Your task to perform on an android device: add a contact Image 0: 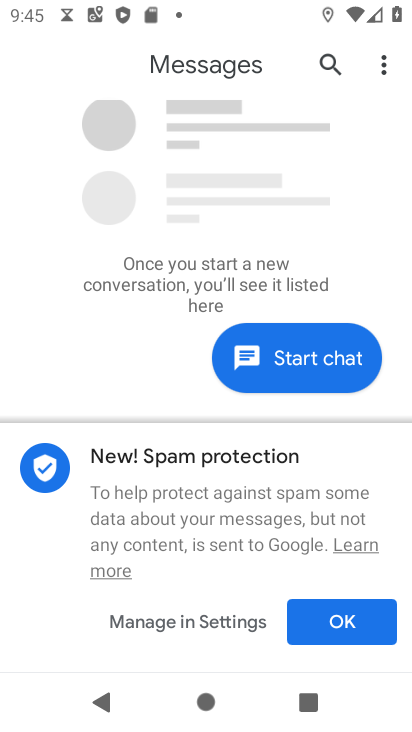
Step 0: press back button
Your task to perform on an android device: add a contact Image 1: 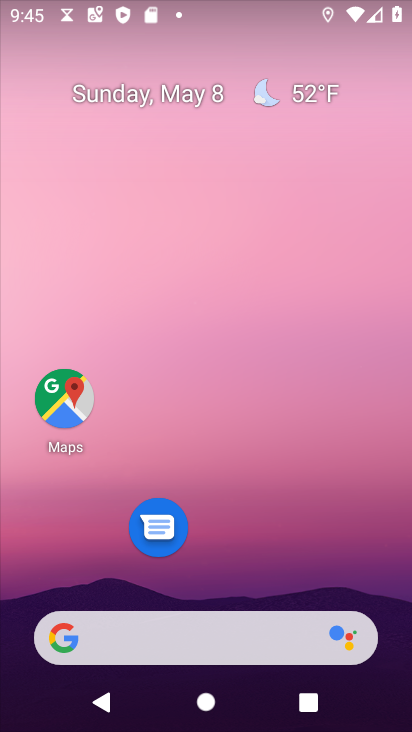
Step 1: drag from (237, 535) to (237, 68)
Your task to perform on an android device: add a contact Image 2: 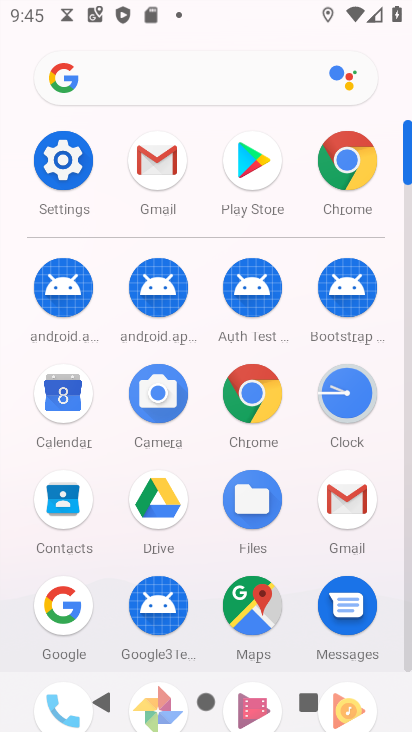
Step 2: click (64, 498)
Your task to perform on an android device: add a contact Image 3: 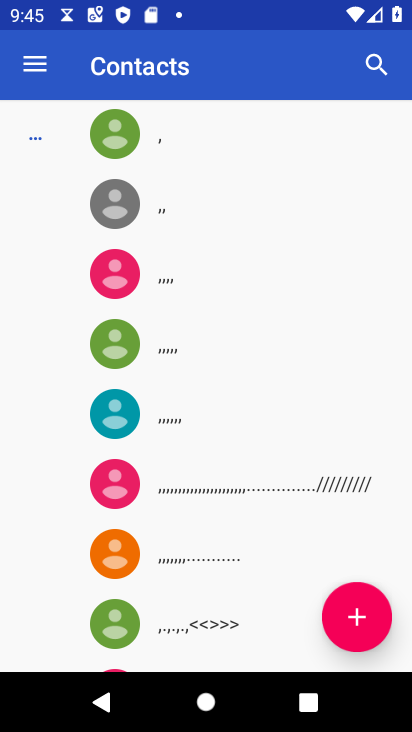
Step 3: click (353, 618)
Your task to perform on an android device: add a contact Image 4: 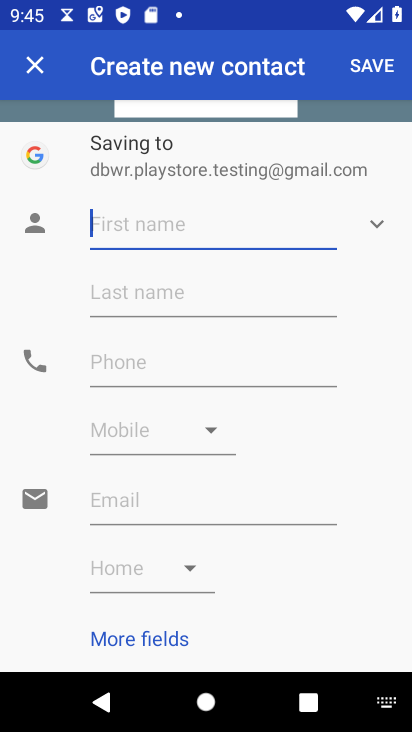
Step 4: click (146, 223)
Your task to perform on an android device: add a contact Image 5: 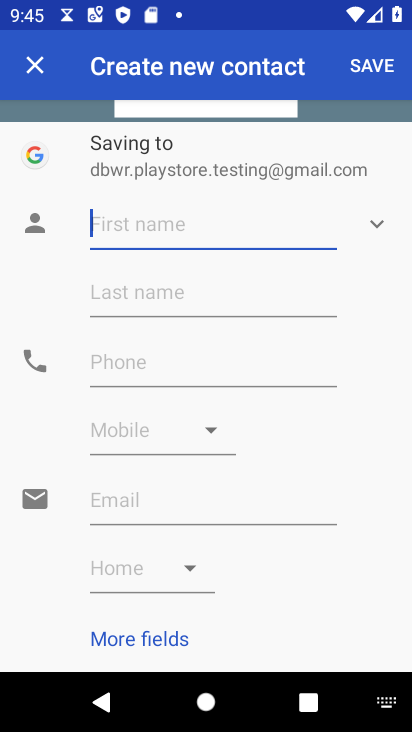
Step 5: click (187, 226)
Your task to perform on an android device: add a contact Image 6: 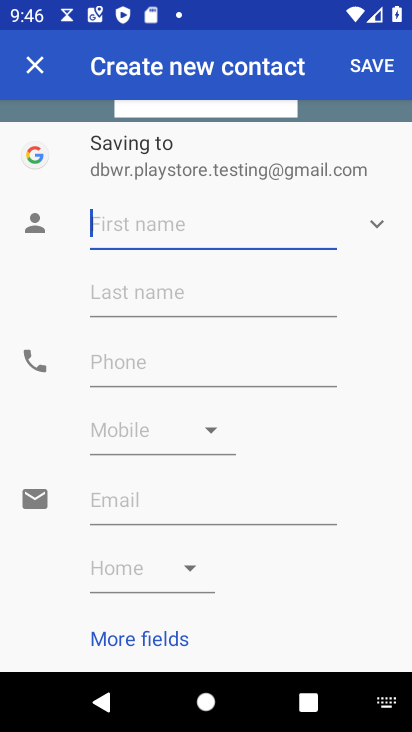
Step 6: type "Suryabhan"
Your task to perform on an android device: add a contact Image 7: 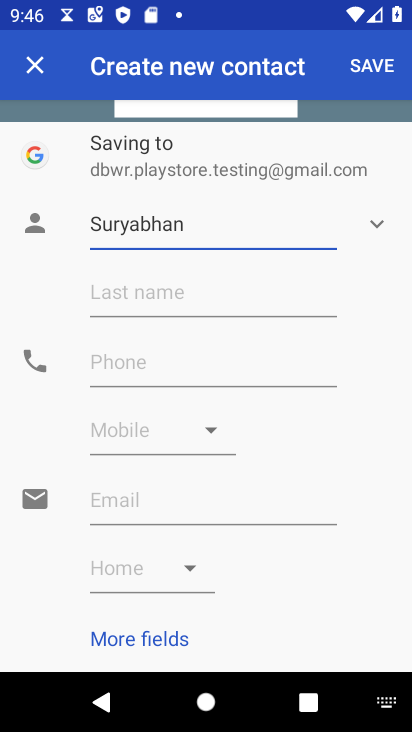
Step 7: click (292, 298)
Your task to perform on an android device: add a contact Image 8: 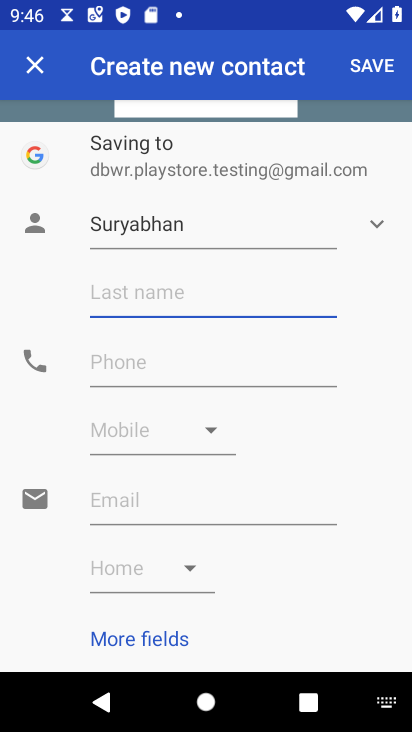
Step 8: type "Pathania"
Your task to perform on an android device: add a contact Image 9: 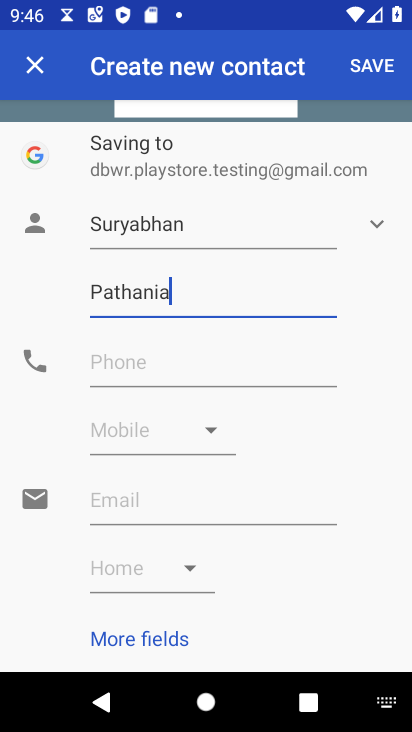
Step 9: click (128, 369)
Your task to perform on an android device: add a contact Image 10: 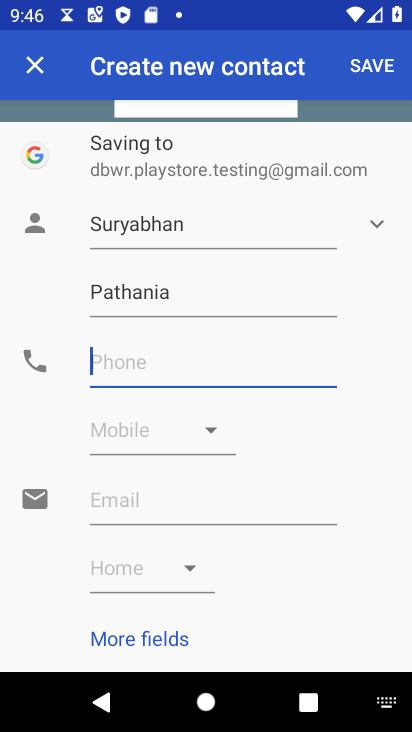
Step 10: type "099668877225"
Your task to perform on an android device: add a contact Image 11: 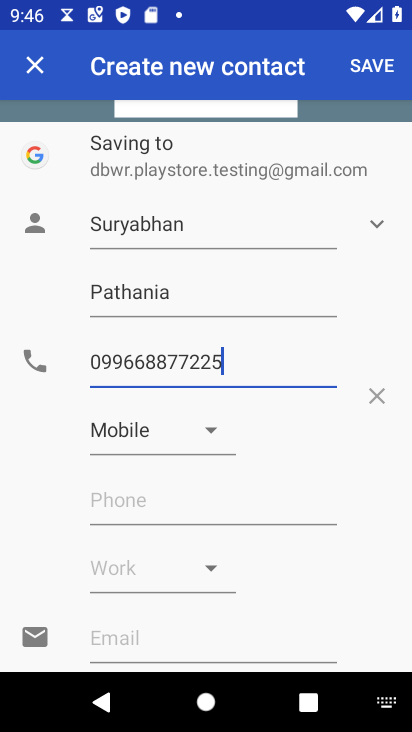
Step 11: click (382, 65)
Your task to perform on an android device: add a contact Image 12: 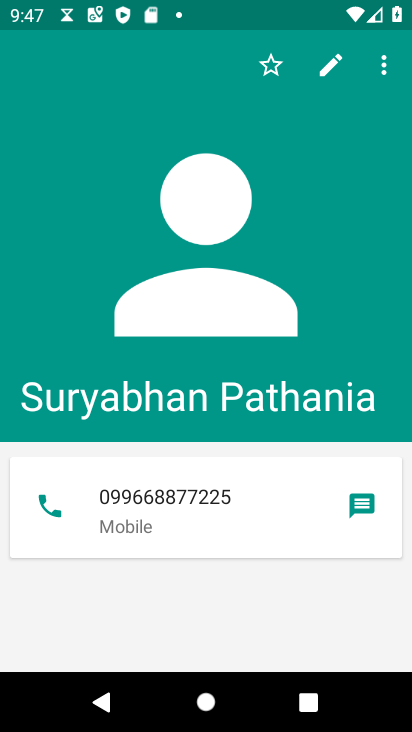
Step 12: task complete